Your task to perform on an android device: Turn on the flashlight Image 0: 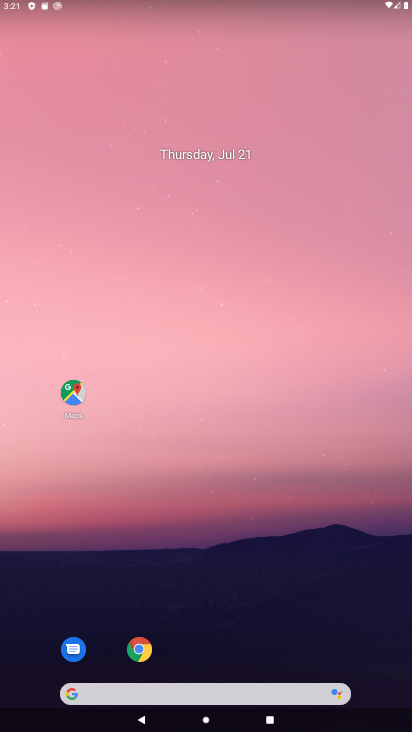
Step 0: drag from (202, 687) to (276, 133)
Your task to perform on an android device: Turn on the flashlight Image 1: 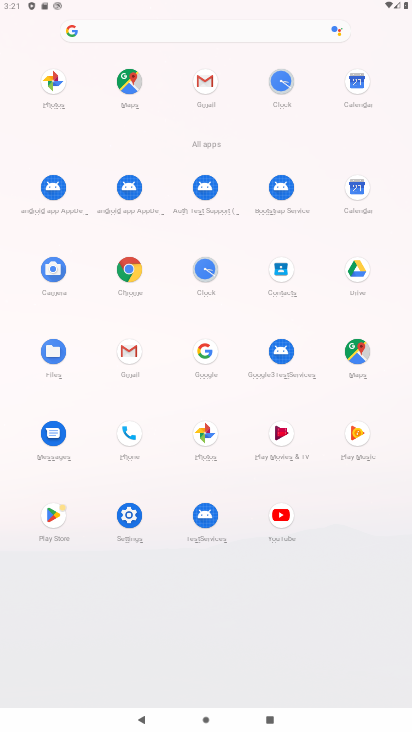
Step 1: click (130, 513)
Your task to perform on an android device: Turn on the flashlight Image 2: 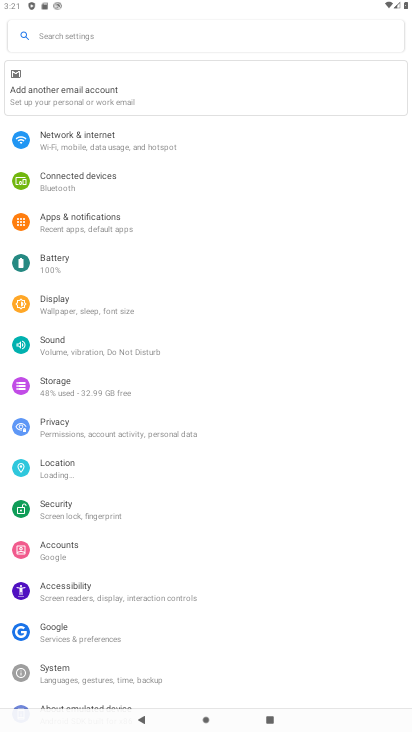
Step 2: click (68, 135)
Your task to perform on an android device: Turn on the flashlight Image 3: 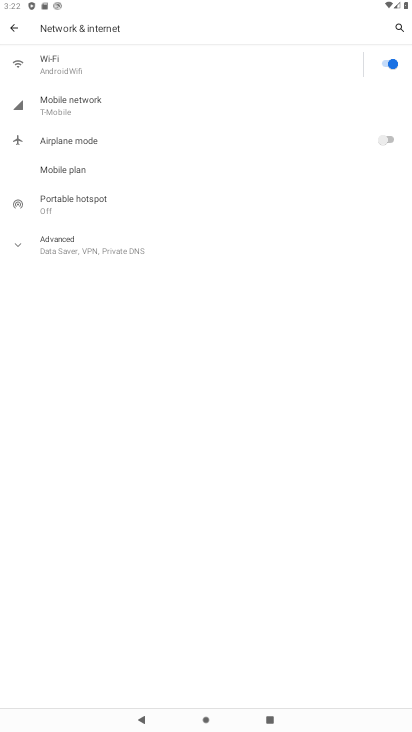
Step 3: press back button
Your task to perform on an android device: Turn on the flashlight Image 4: 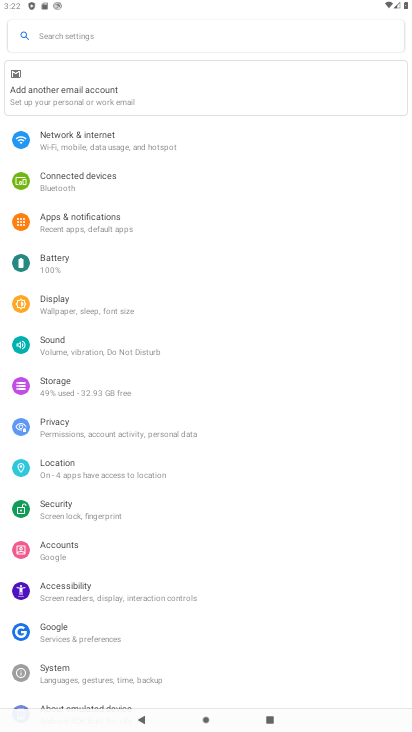
Step 4: click (92, 217)
Your task to perform on an android device: Turn on the flashlight Image 5: 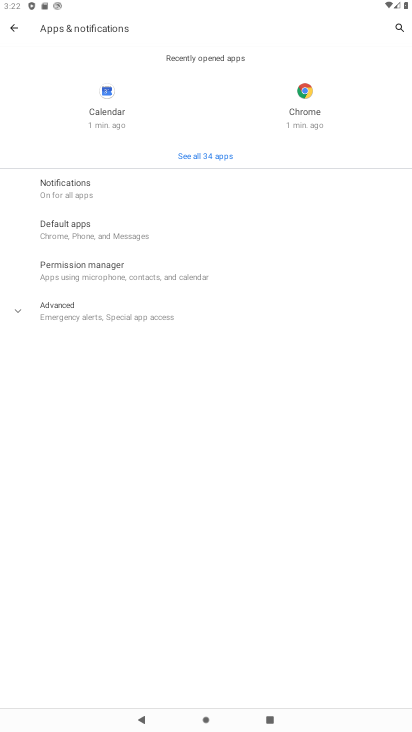
Step 5: click (104, 320)
Your task to perform on an android device: Turn on the flashlight Image 6: 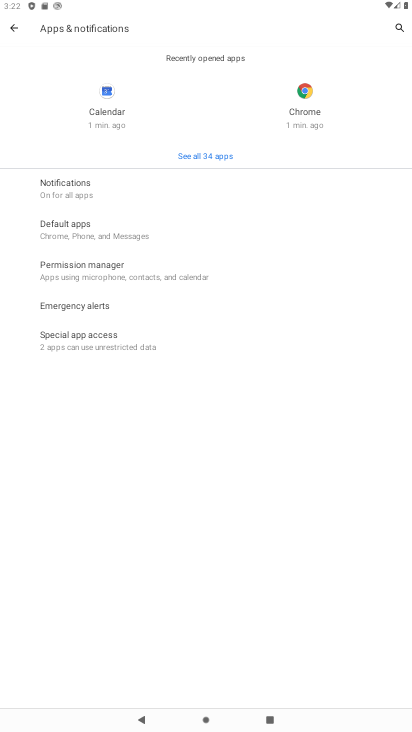
Step 6: press back button
Your task to perform on an android device: Turn on the flashlight Image 7: 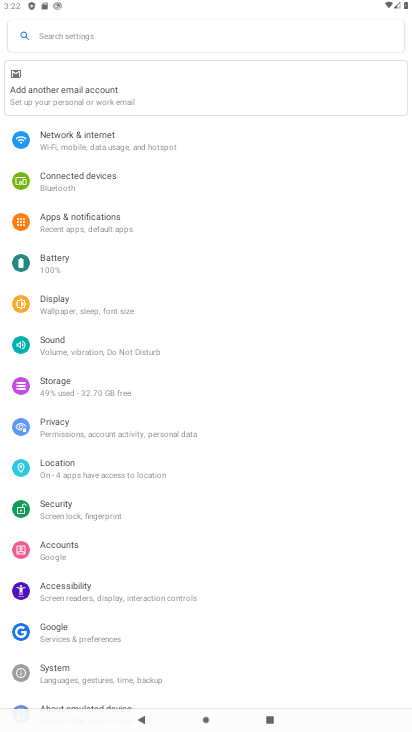
Step 7: click (71, 267)
Your task to perform on an android device: Turn on the flashlight Image 8: 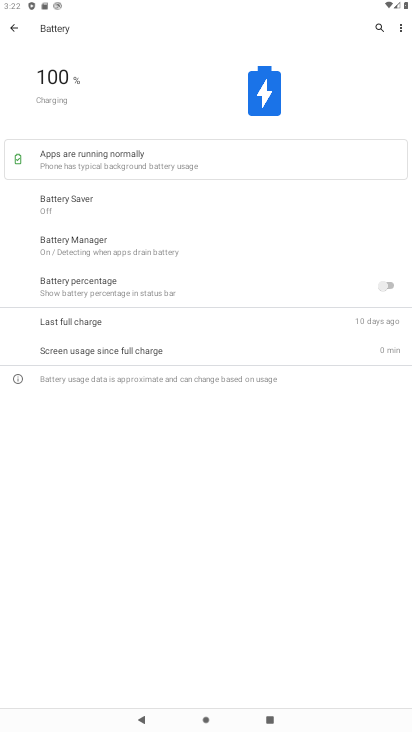
Step 8: press back button
Your task to perform on an android device: Turn on the flashlight Image 9: 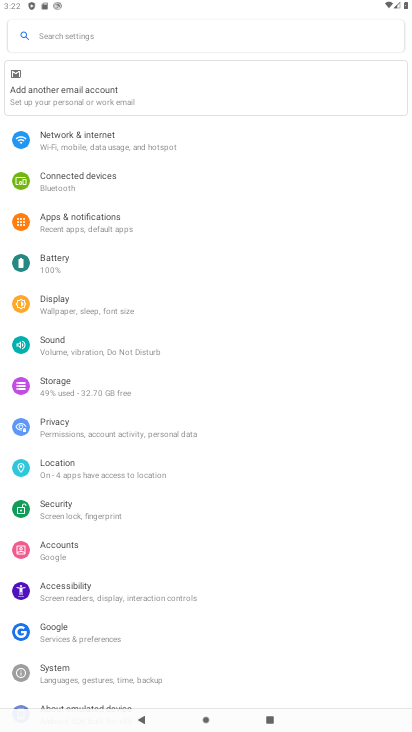
Step 9: click (95, 316)
Your task to perform on an android device: Turn on the flashlight Image 10: 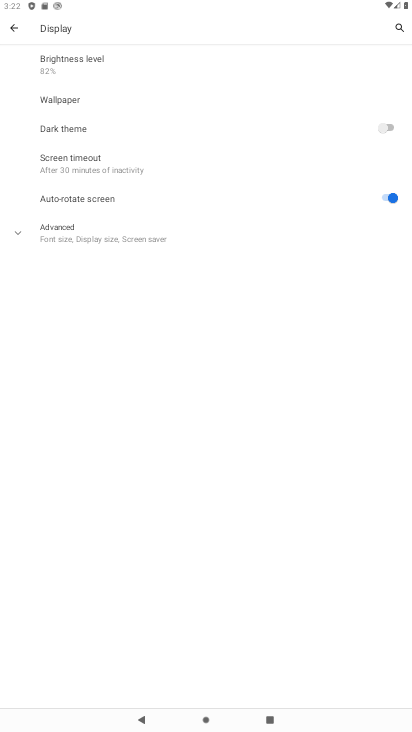
Step 10: click (106, 239)
Your task to perform on an android device: Turn on the flashlight Image 11: 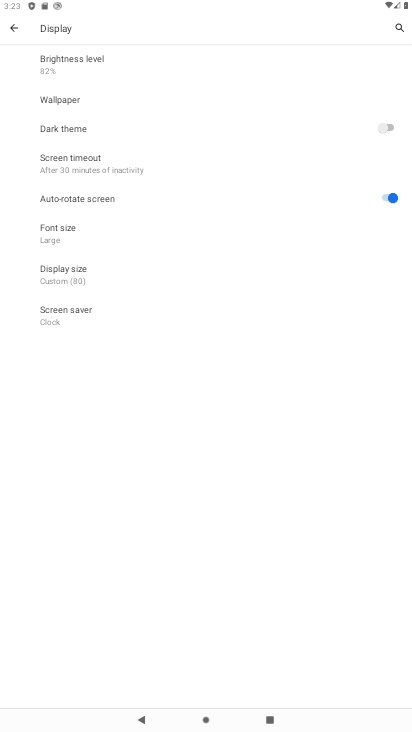
Step 11: click (88, 172)
Your task to perform on an android device: Turn on the flashlight Image 12: 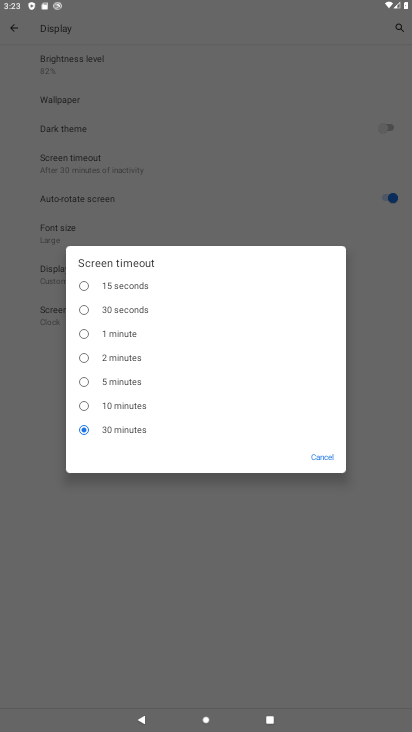
Step 12: click (326, 463)
Your task to perform on an android device: Turn on the flashlight Image 13: 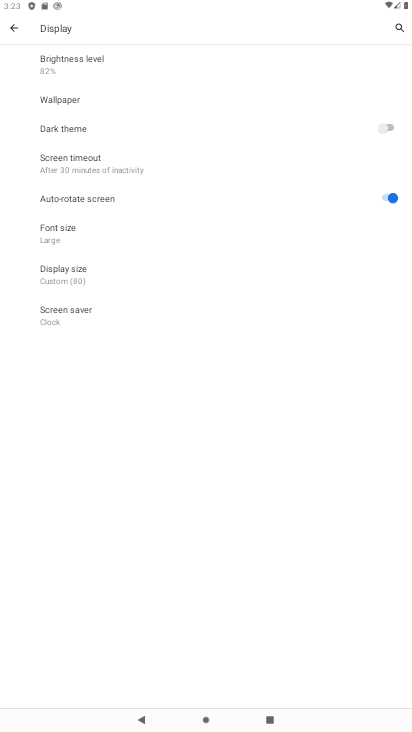
Step 13: click (221, 17)
Your task to perform on an android device: Turn on the flashlight Image 14: 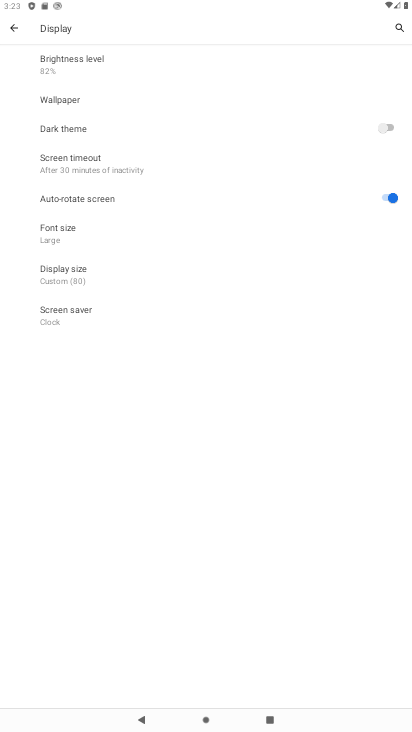
Step 14: click (219, 27)
Your task to perform on an android device: Turn on the flashlight Image 15: 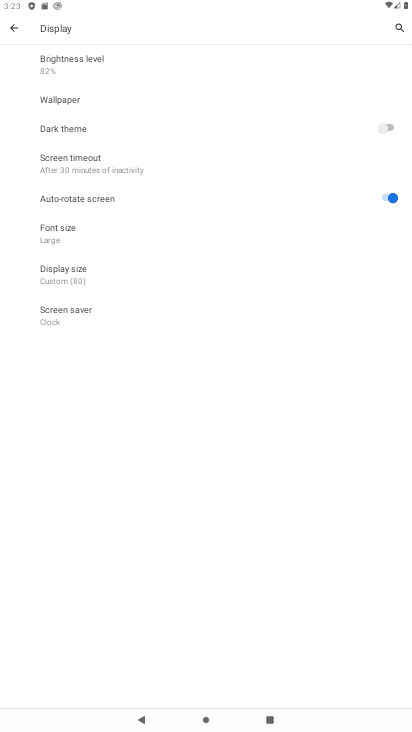
Step 15: click (401, 24)
Your task to perform on an android device: Turn on the flashlight Image 16: 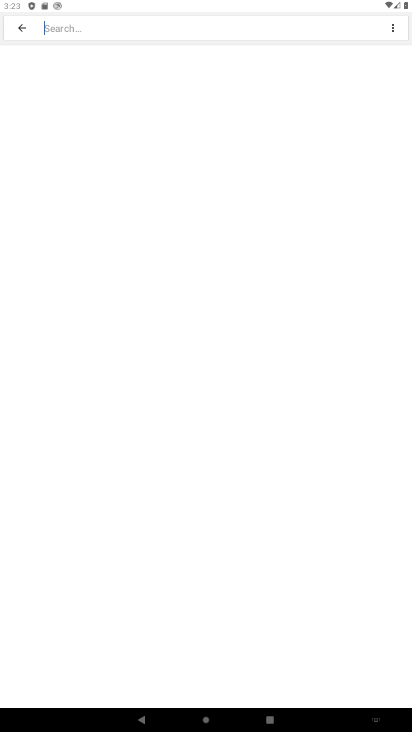
Step 16: type "flashlight"
Your task to perform on an android device: Turn on the flashlight Image 17: 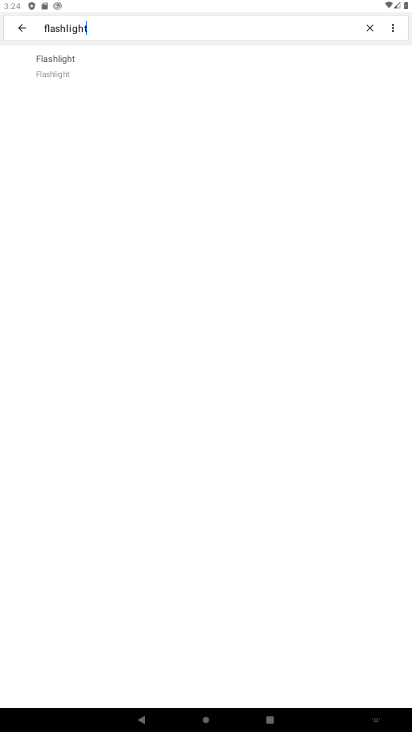
Step 17: task complete